Your task to perform on an android device: Open Google Maps Image 0: 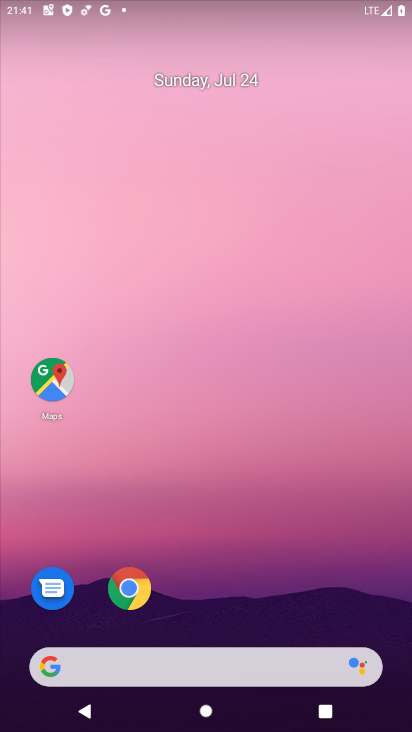
Step 0: click (59, 388)
Your task to perform on an android device: Open Google Maps Image 1: 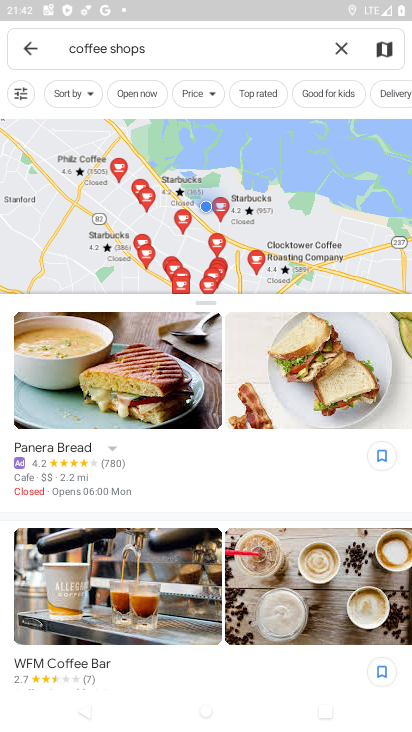
Step 1: task complete